Your task to perform on an android device: clear history in the chrome app Image 0: 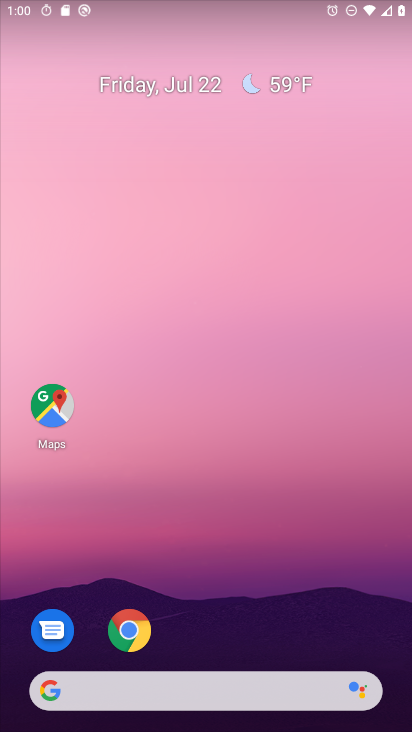
Step 0: press home button
Your task to perform on an android device: clear history in the chrome app Image 1: 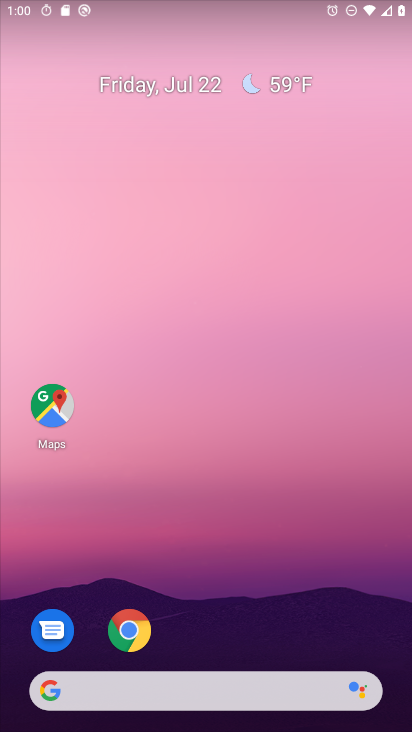
Step 1: drag from (214, 638) to (250, 79)
Your task to perform on an android device: clear history in the chrome app Image 2: 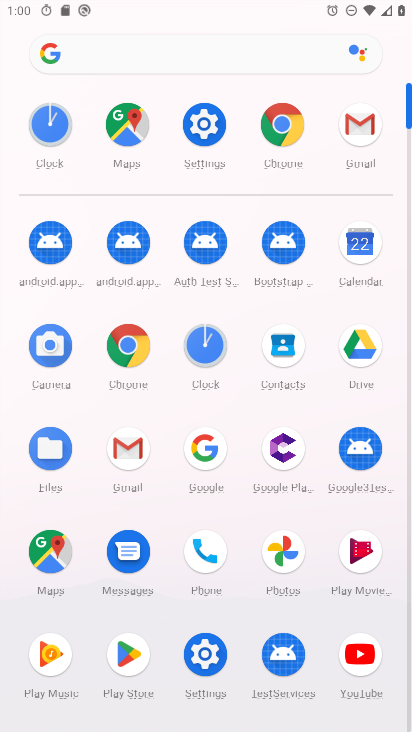
Step 2: click (292, 129)
Your task to perform on an android device: clear history in the chrome app Image 3: 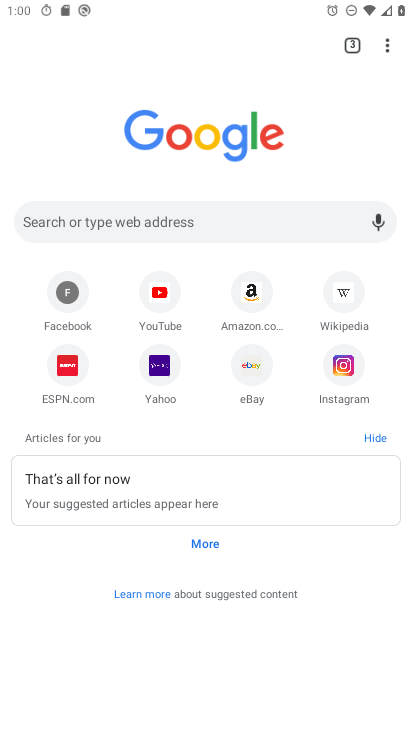
Step 3: task complete